Your task to perform on an android device: set the timer Image 0: 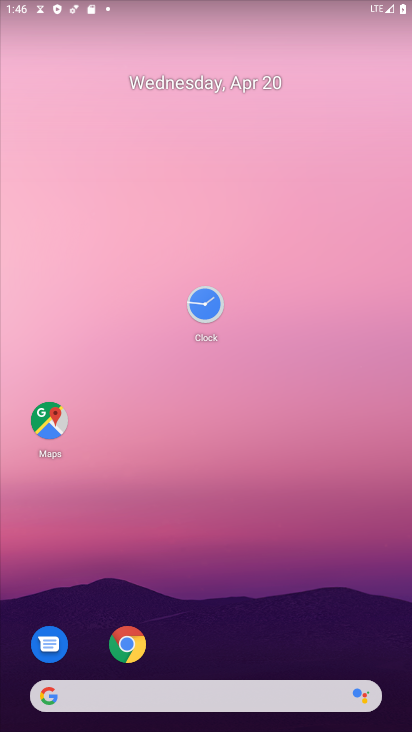
Step 0: drag from (204, 593) to (185, 102)
Your task to perform on an android device: set the timer Image 1: 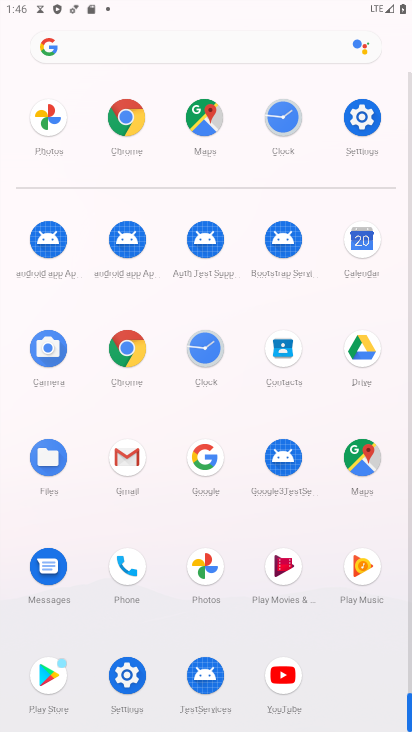
Step 1: click (206, 343)
Your task to perform on an android device: set the timer Image 2: 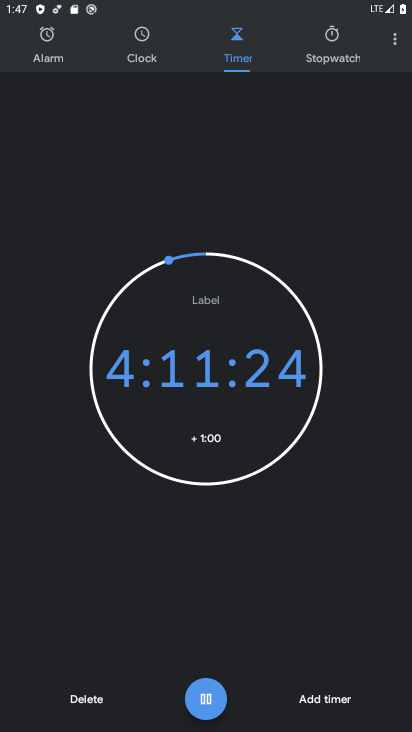
Step 2: click (79, 698)
Your task to perform on an android device: set the timer Image 3: 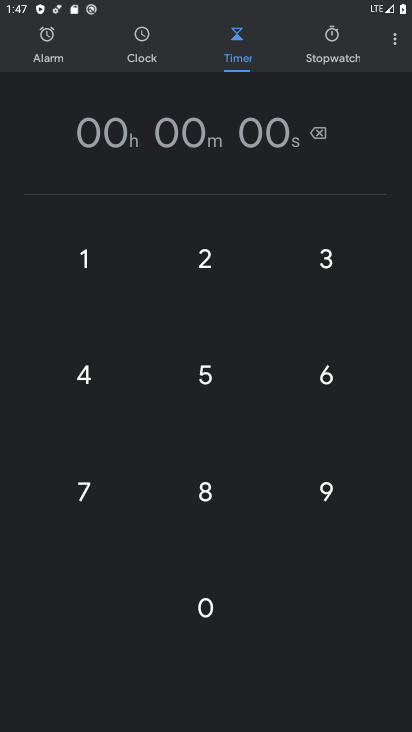
Step 3: click (196, 619)
Your task to perform on an android device: set the timer Image 4: 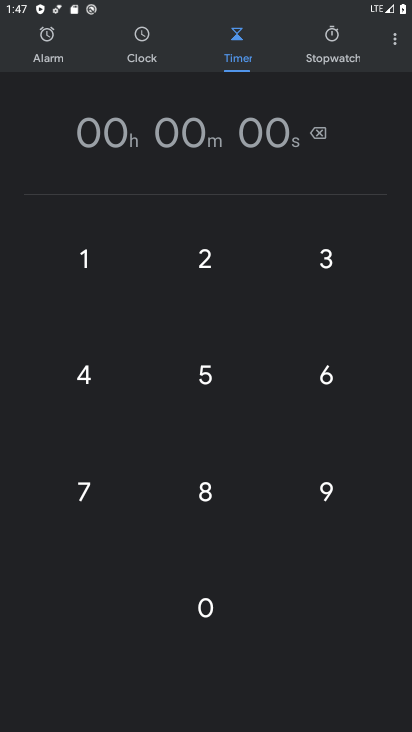
Step 4: click (327, 501)
Your task to perform on an android device: set the timer Image 5: 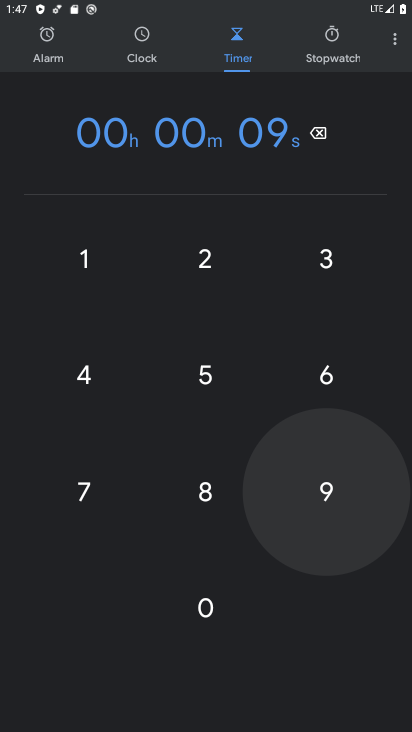
Step 5: click (203, 372)
Your task to perform on an android device: set the timer Image 6: 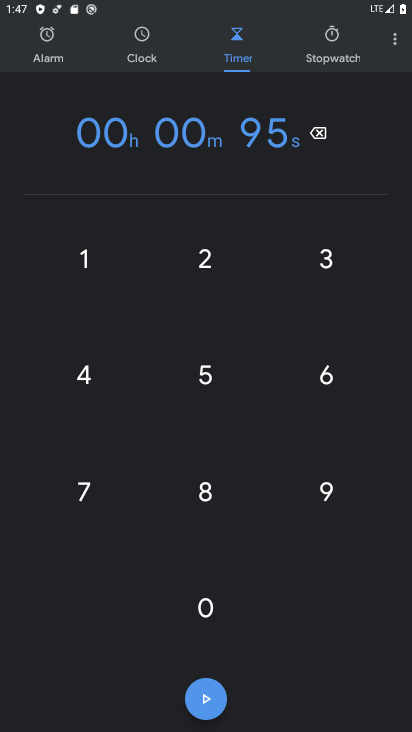
Step 6: click (204, 258)
Your task to perform on an android device: set the timer Image 7: 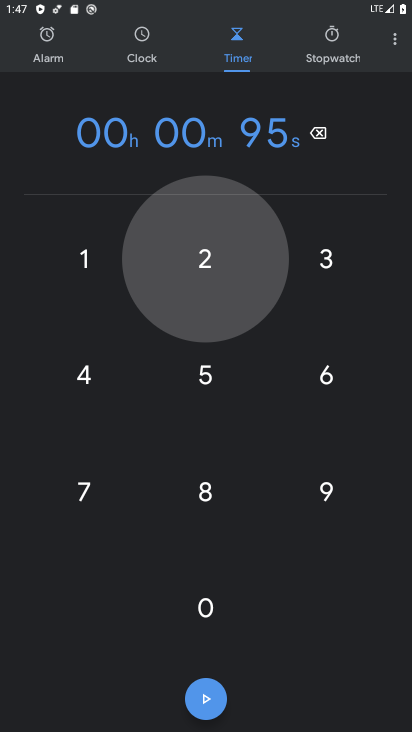
Step 7: click (83, 261)
Your task to perform on an android device: set the timer Image 8: 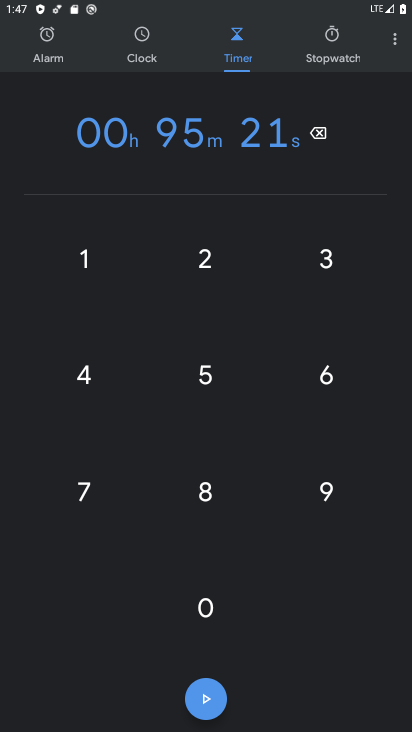
Step 8: click (317, 275)
Your task to perform on an android device: set the timer Image 9: 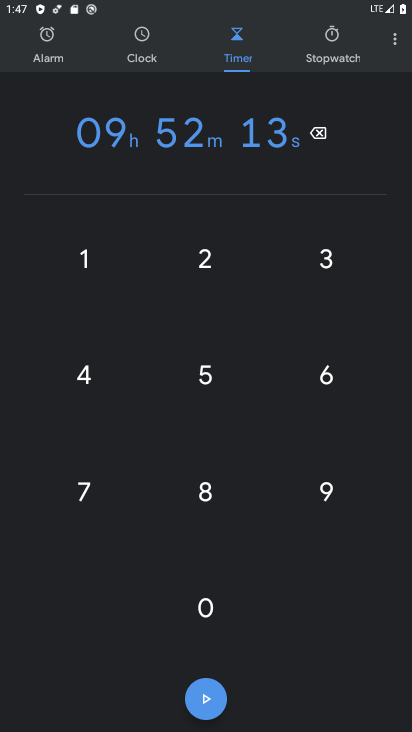
Step 9: click (218, 702)
Your task to perform on an android device: set the timer Image 10: 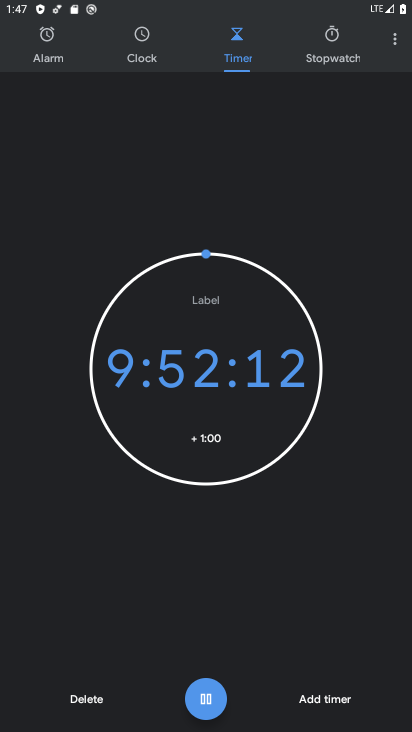
Step 10: task complete